Your task to perform on an android device: change the clock display to analog Image 0: 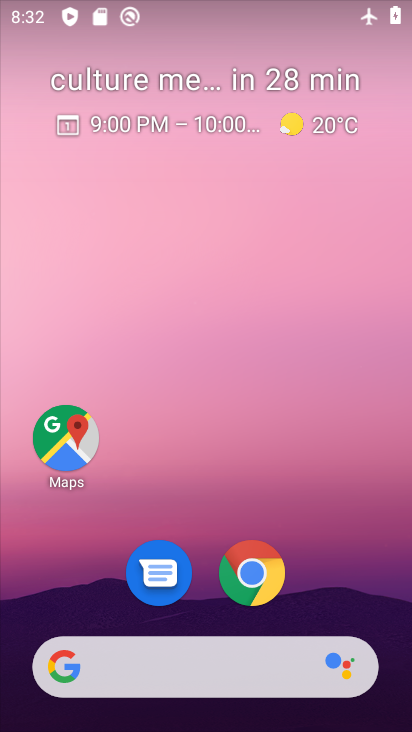
Step 0: drag from (175, 624) to (217, 33)
Your task to perform on an android device: change the clock display to analog Image 1: 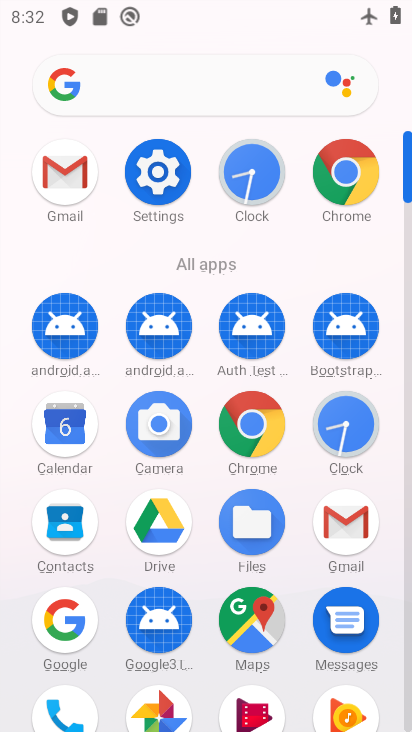
Step 1: click (344, 430)
Your task to perform on an android device: change the clock display to analog Image 2: 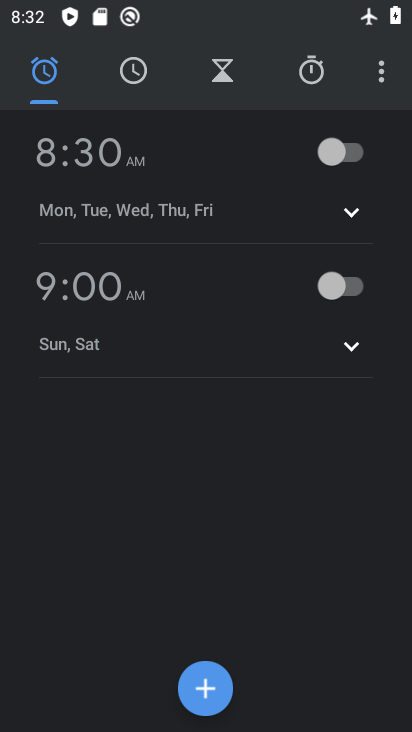
Step 2: click (376, 71)
Your task to perform on an android device: change the clock display to analog Image 3: 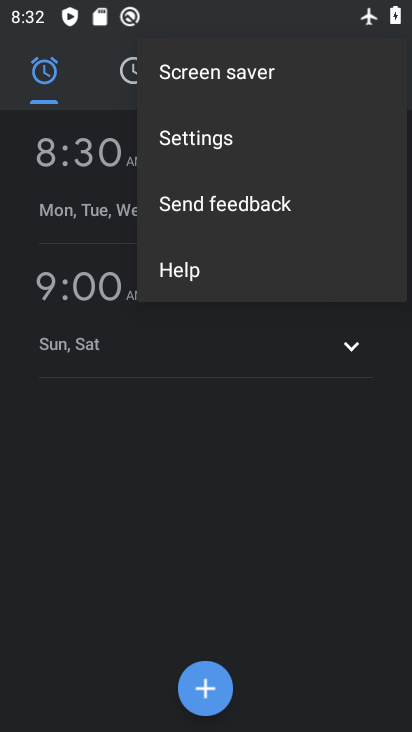
Step 3: click (263, 134)
Your task to perform on an android device: change the clock display to analog Image 4: 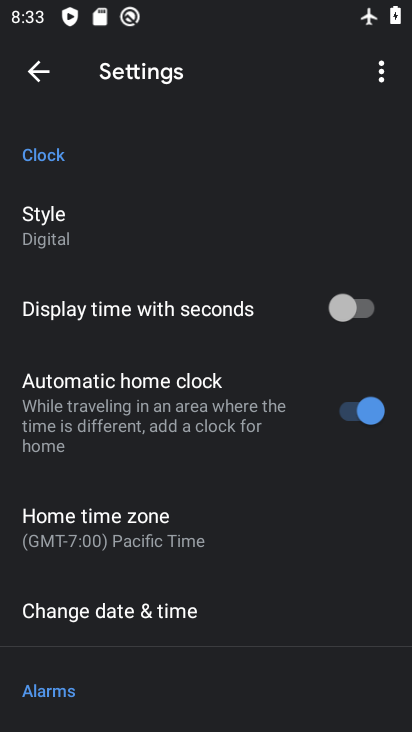
Step 4: click (89, 227)
Your task to perform on an android device: change the clock display to analog Image 5: 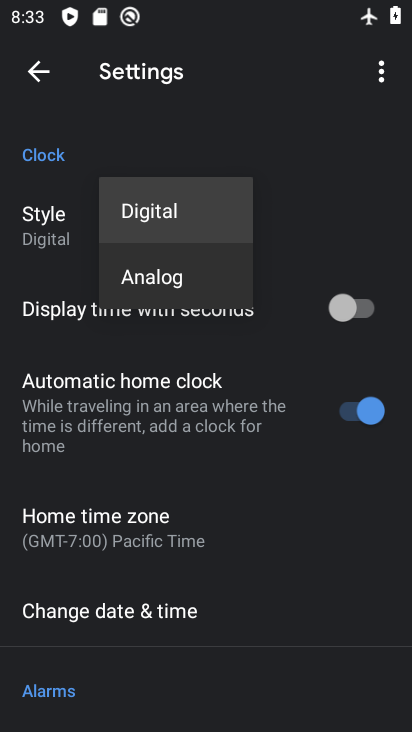
Step 5: click (159, 275)
Your task to perform on an android device: change the clock display to analog Image 6: 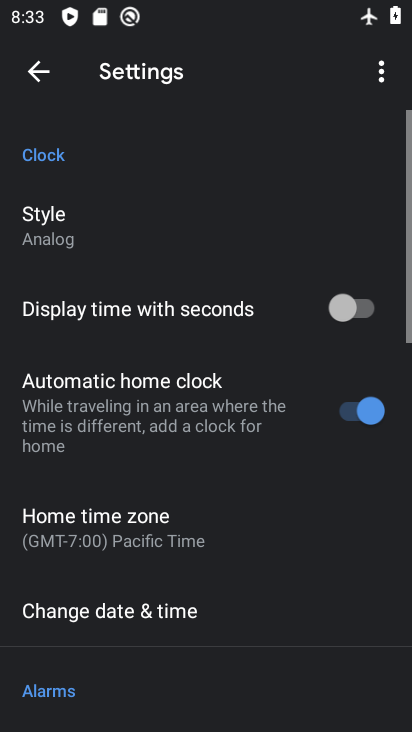
Step 6: task complete